Your task to perform on an android device: Open the map Image 0: 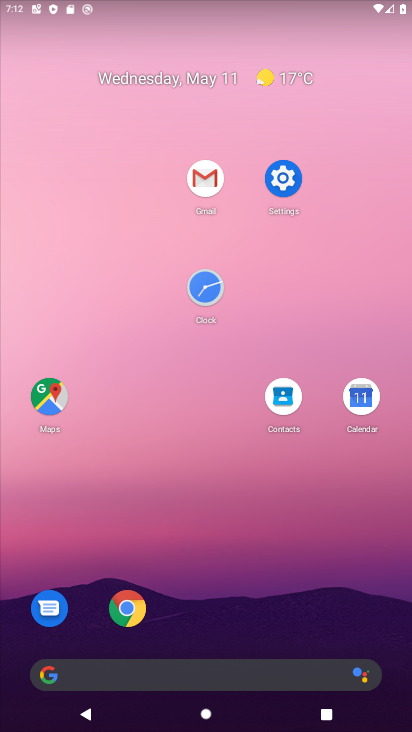
Step 0: click (47, 388)
Your task to perform on an android device: Open the map Image 1: 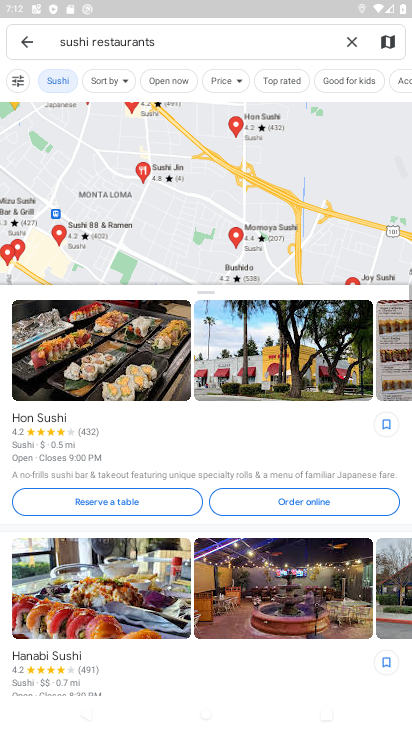
Step 1: task complete